Your task to perform on an android device: see creations saved in the google photos Image 0: 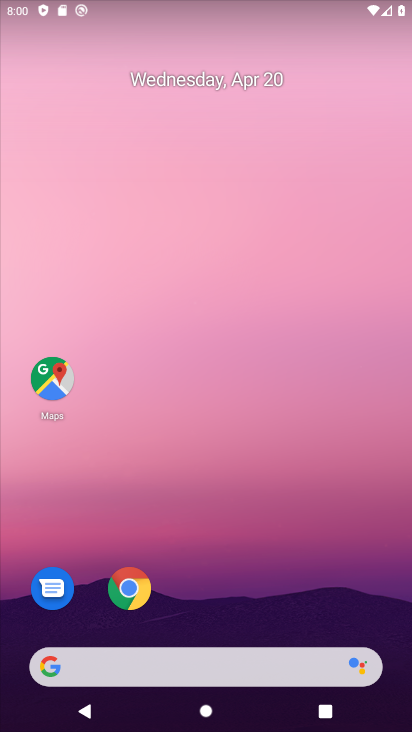
Step 0: drag from (281, 593) to (329, 255)
Your task to perform on an android device: see creations saved in the google photos Image 1: 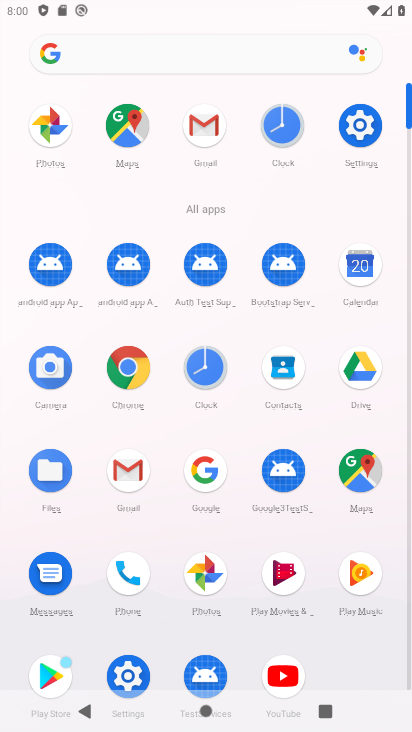
Step 1: click (197, 576)
Your task to perform on an android device: see creations saved in the google photos Image 2: 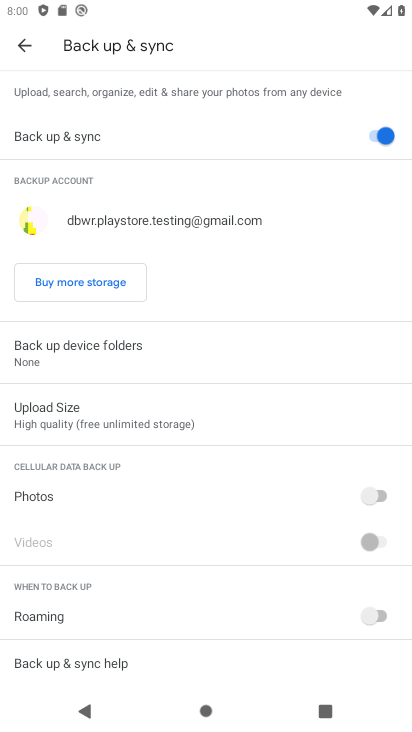
Step 2: click (31, 48)
Your task to perform on an android device: see creations saved in the google photos Image 3: 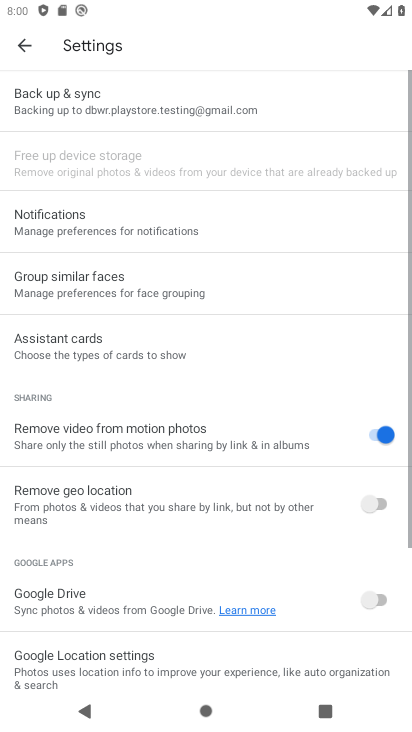
Step 3: click (31, 48)
Your task to perform on an android device: see creations saved in the google photos Image 4: 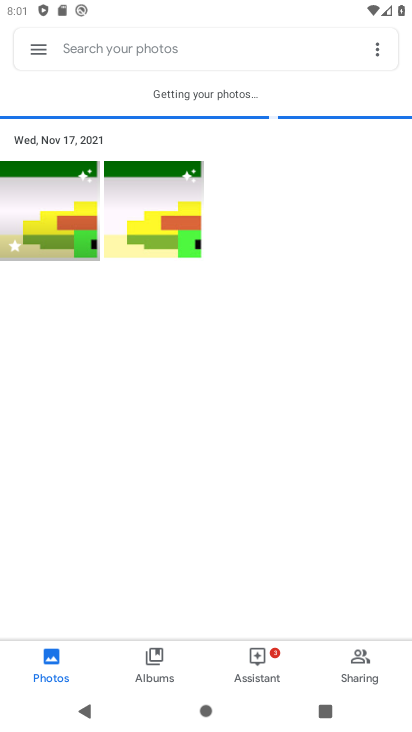
Step 4: click (258, 674)
Your task to perform on an android device: see creations saved in the google photos Image 5: 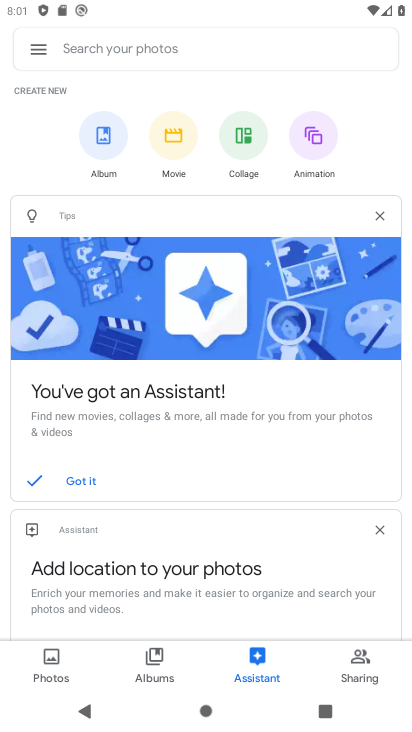
Step 5: task complete